Your task to perform on an android device: Show me recent news Image 0: 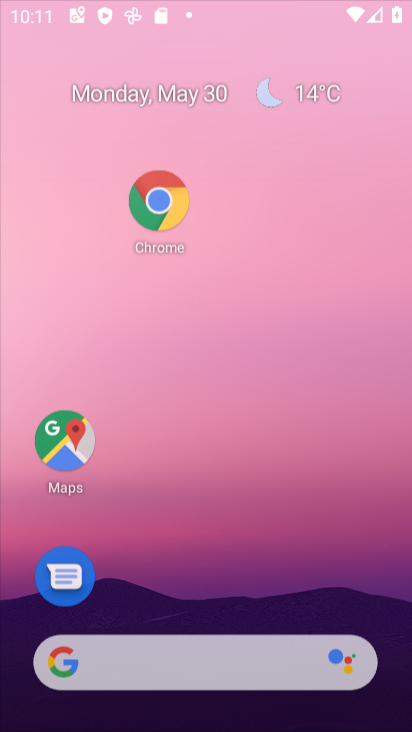
Step 0: click (221, 185)
Your task to perform on an android device: Show me recent news Image 1: 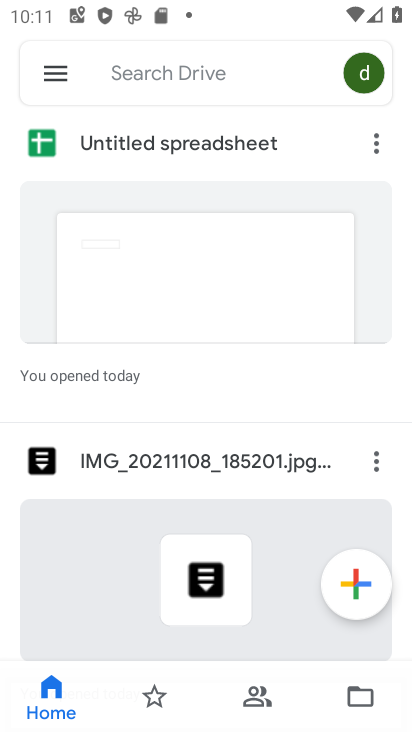
Step 1: drag from (269, 394) to (264, 184)
Your task to perform on an android device: Show me recent news Image 2: 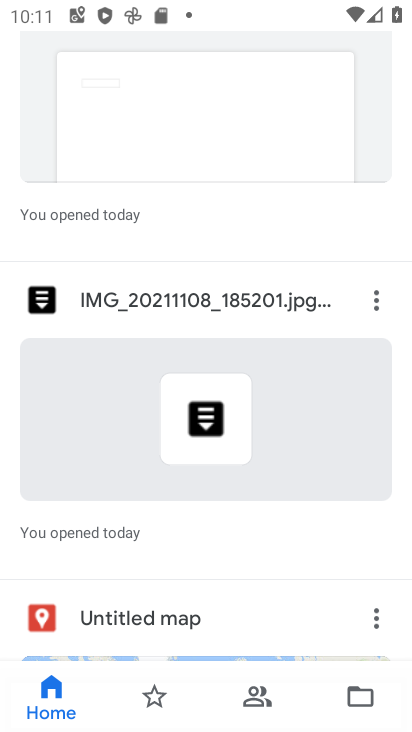
Step 2: drag from (247, 231) to (311, 665)
Your task to perform on an android device: Show me recent news Image 3: 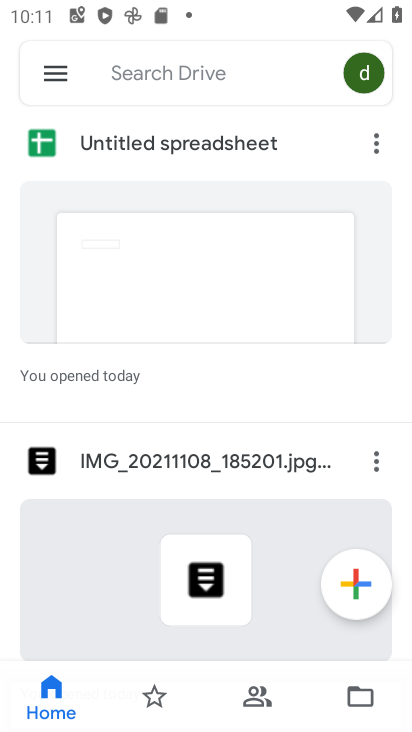
Step 3: press home button
Your task to perform on an android device: Show me recent news Image 4: 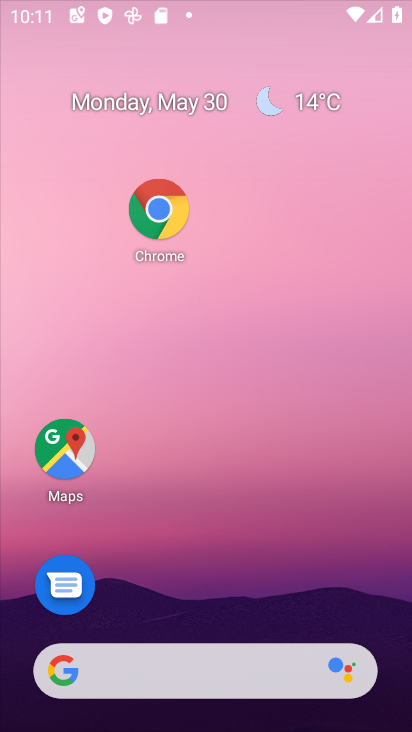
Step 4: drag from (259, 555) to (311, 136)
Your task to perform on an android device: Show me recent news Image 5: 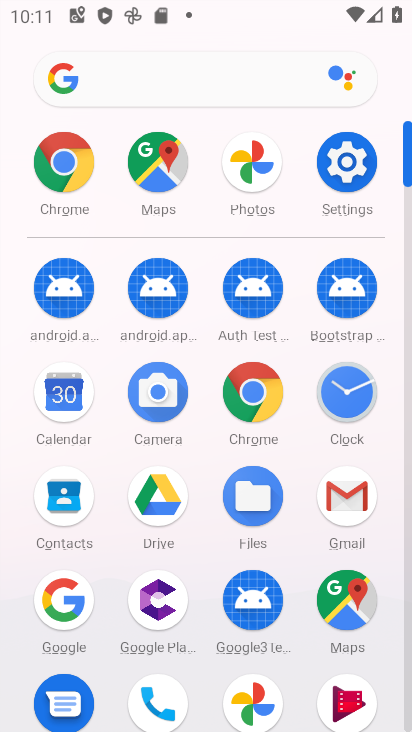
Step 5: click (161, 84)
Your task to perform on an android device: Show me recent news Image 6: 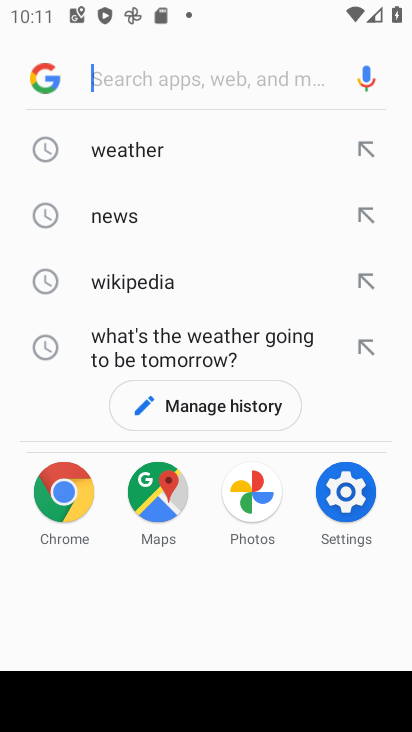
Step 6: type "recent news"
Your task to perform on an android device: Show me recent news Image 7: 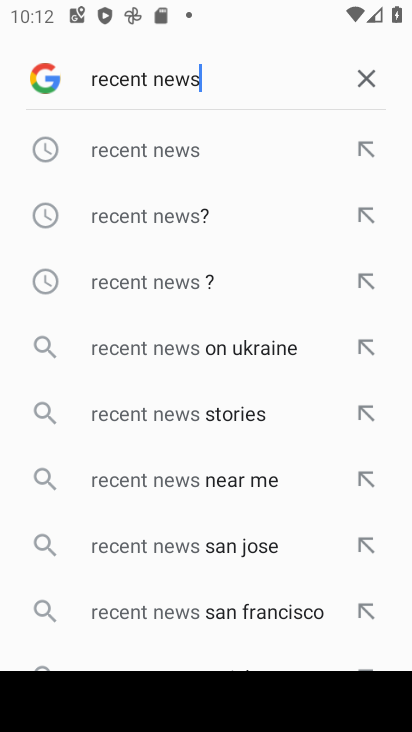
Step 7: click (128, 217)
Your task to perform on an android device: Show me recent news Image 8: 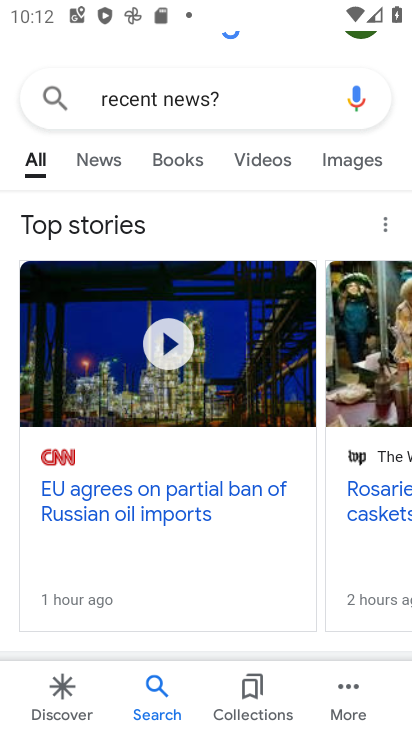
Step 8: task complete